Your task to perform on an android device: change your default location settings in chrome Image 0: 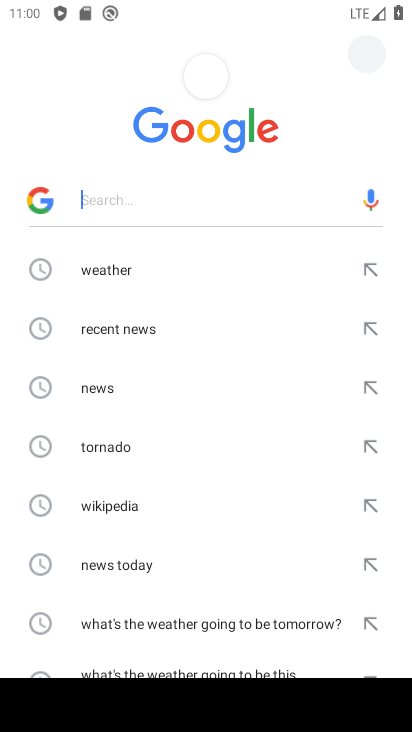
Step 0: press home button
Your task to perform on an android device: change your default location settings in chrome Image 1: 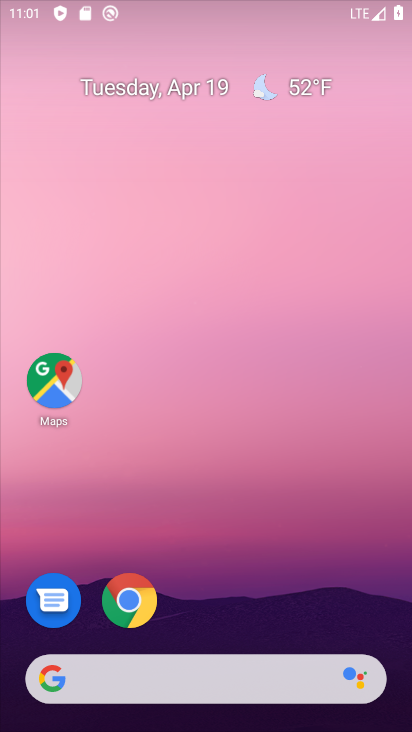
Step 1: drag from (326, 587) to (239, 80)
Your task to perform on an android device: change your default location settings in chrome Image 2: 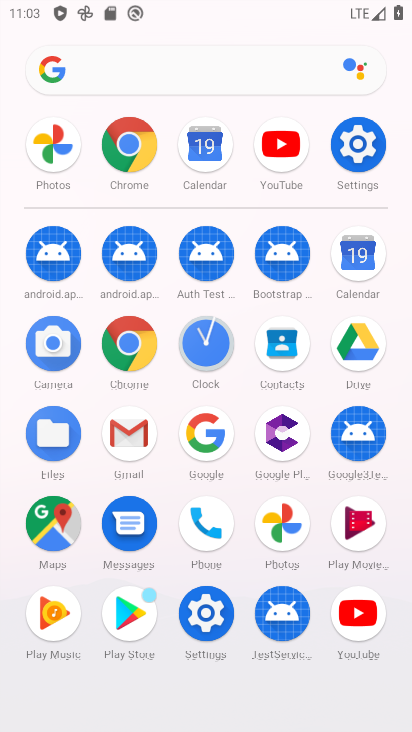
Step 2: click (134, 150)
Your task to perform on an android device: change your default location settings in chrome Image 3: 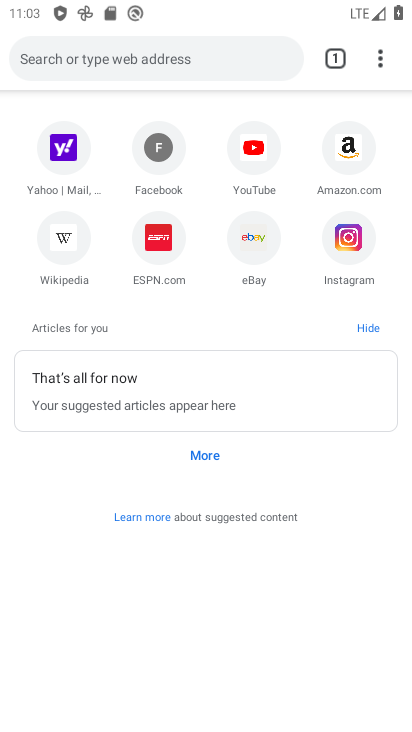
Step 3: click (385, 54)
Your task to perform on an android device: change your default location settings in chrome Image 4: 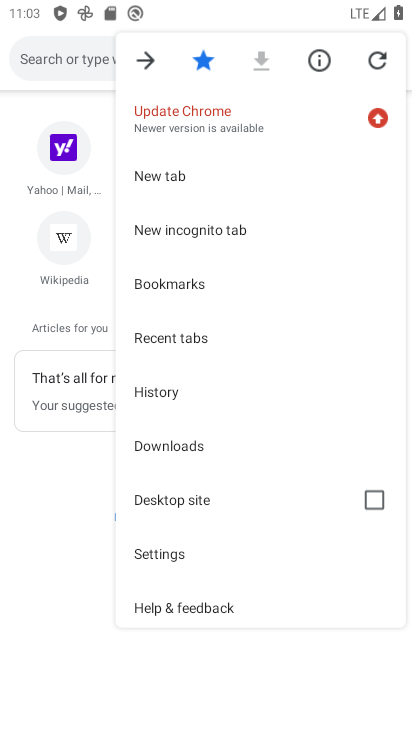
Step 4: click (198, 558)
Your task to perform on an android device: change your default location settings in chrome Image 5: 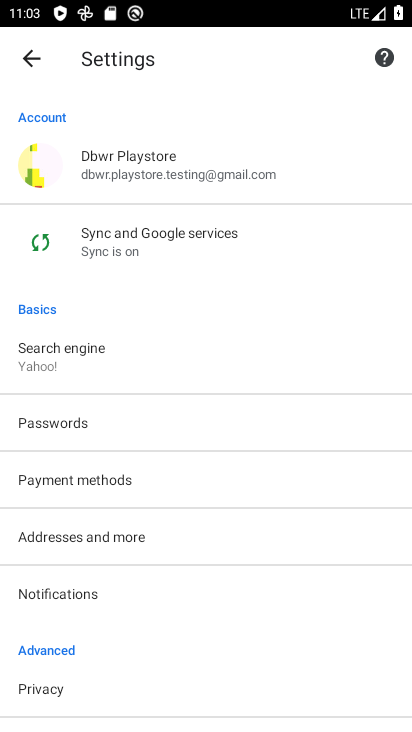
Step 5: click (184, 369)
Your task to perform on an android device: change your default location settings in chrome Image 6: 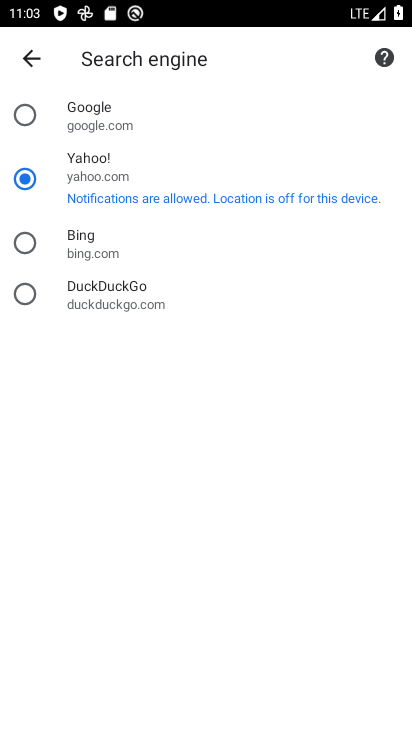
Step 6: click (191, 108)
Your task to perform on an android device: change your default location settings in chrome Image 7: 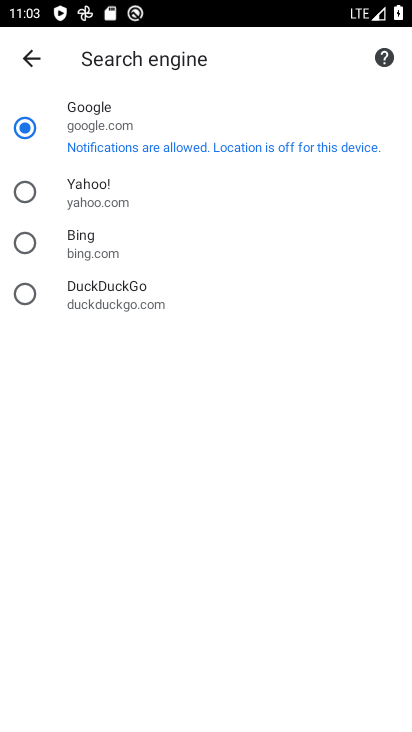
Step 7: task complete